Your task to perform on an android device: turn off notifications settings in the gmail app Image 0: 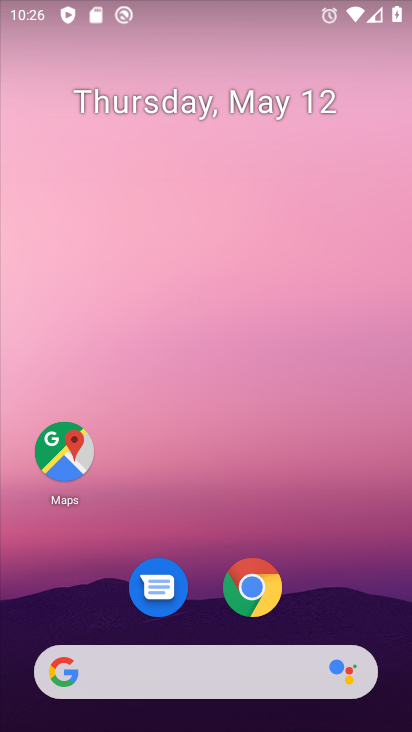
Step 0: drag from (345, 594) to (280, 84)
Your task to perform on an android device: turn off notifications settings in the gmail app Image 1: 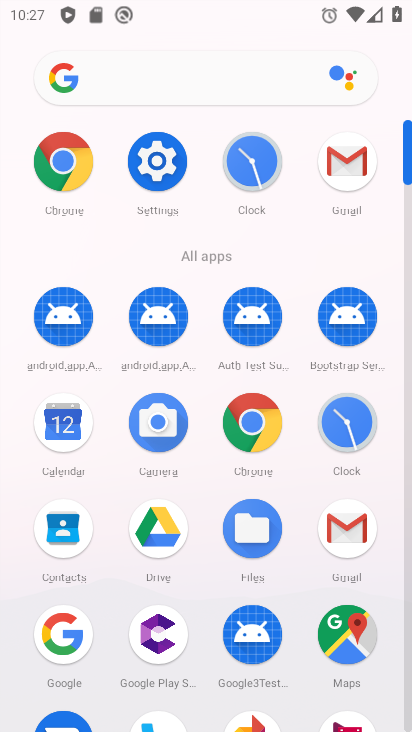
Step 1: click (340, 159)
Your task to perform on an android device: turn off notifications settings in the gmail app Image 2: 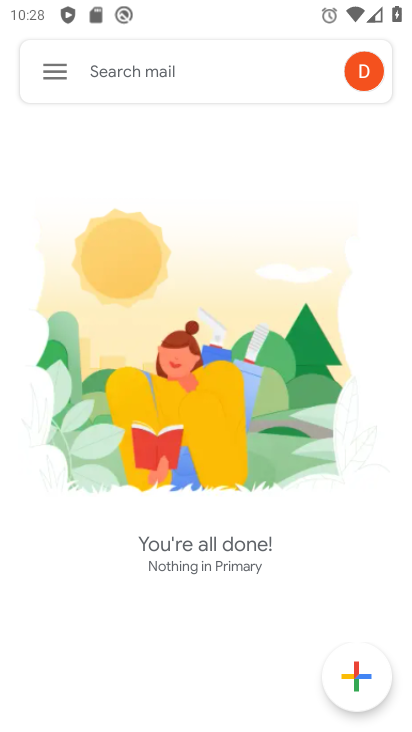
Step 2: click (47, 73)
Your task to perform on an android device: turn off notifications settings in the gmail app Image 3: 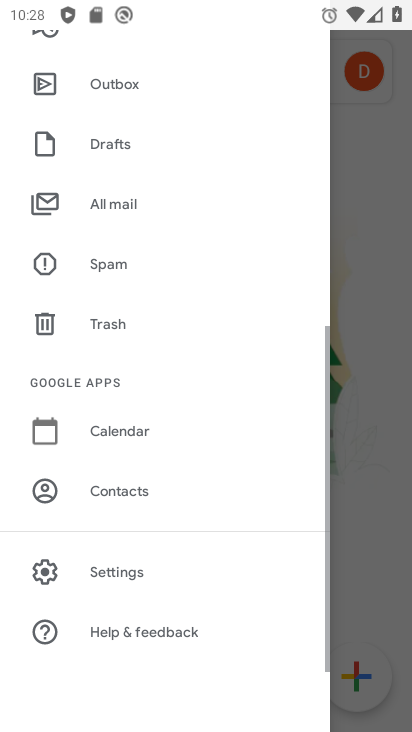
Step 3: click (125, 564)
Your task to perform on an android device: turn off notifications settings in the gmail app Image 4: 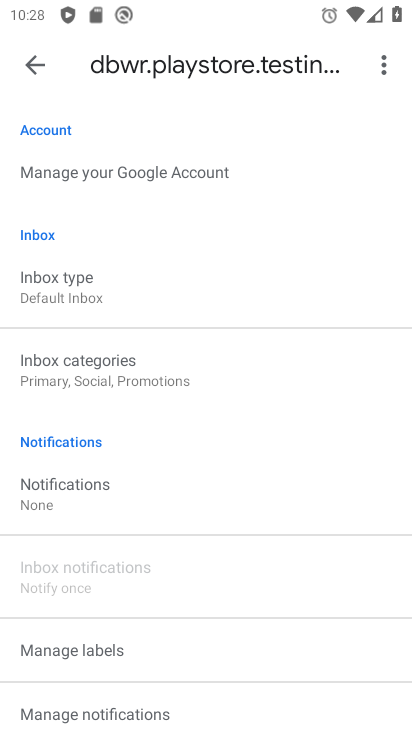
Step 4: click (57, 495)
Your task to perform on an android device: turn off notifications settings in the gmail app Image 5: 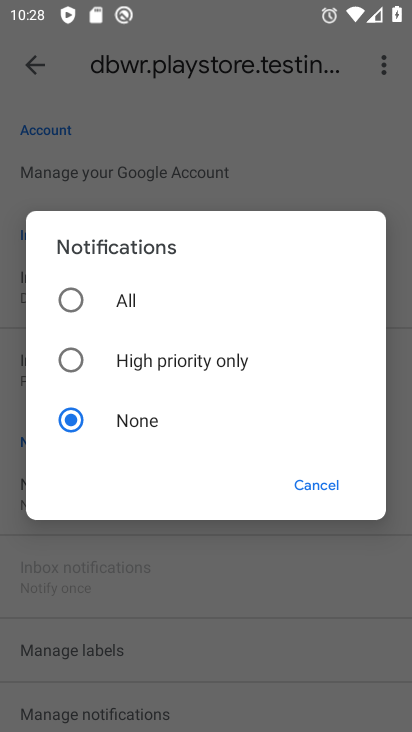
Step 5: task complete